Your task to perform on an android device: When is my next meeting? Image 0: 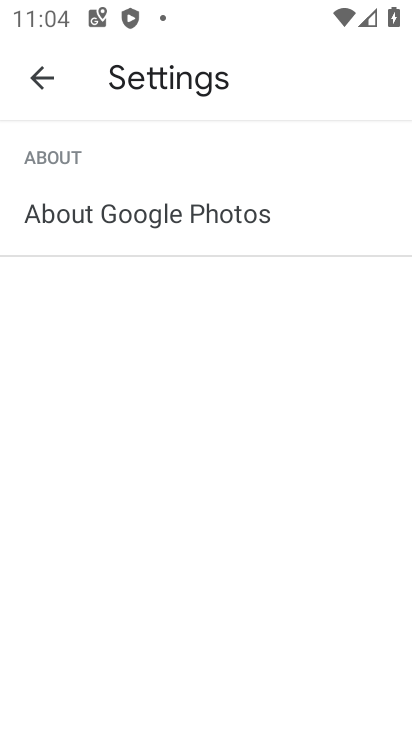
Step 0: press home button
Your task to perform on an android device: When is my next meeting? Image 1: 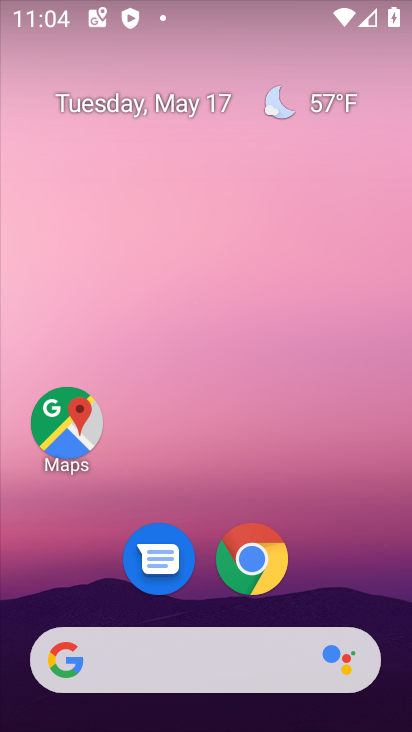
Step 1: drag from (370, 577) to (324, 14)
Your task to perform on an android device: When is my next meeting? Image 2: 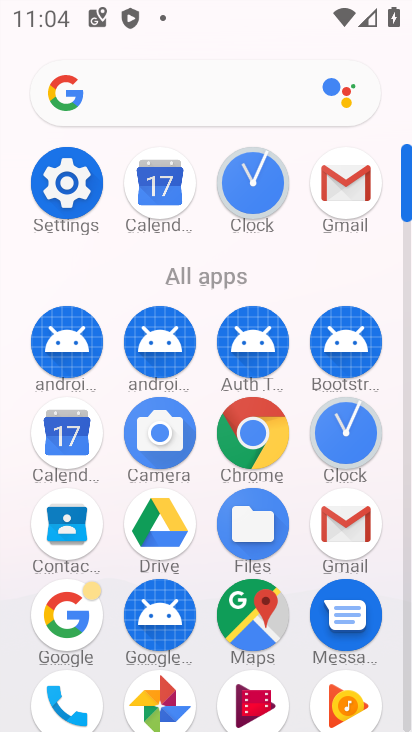
Step 2: click (144, 160)
Your task to perform on an android device: When is my next meeting? Image 3: 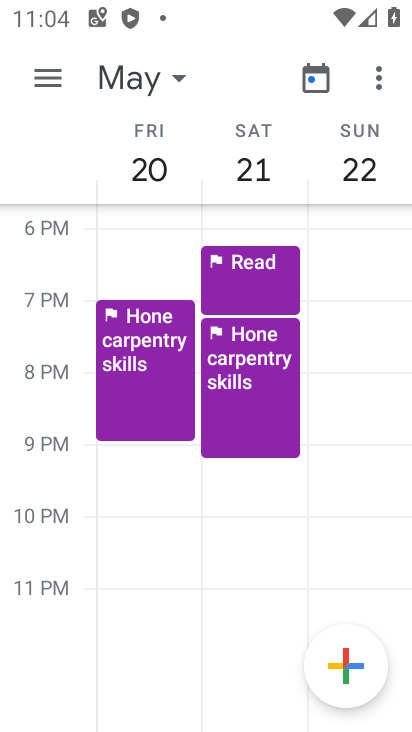
Step 3: click (63, 76)
Your task to perform on an android device: When is my next meeting? Image 4: 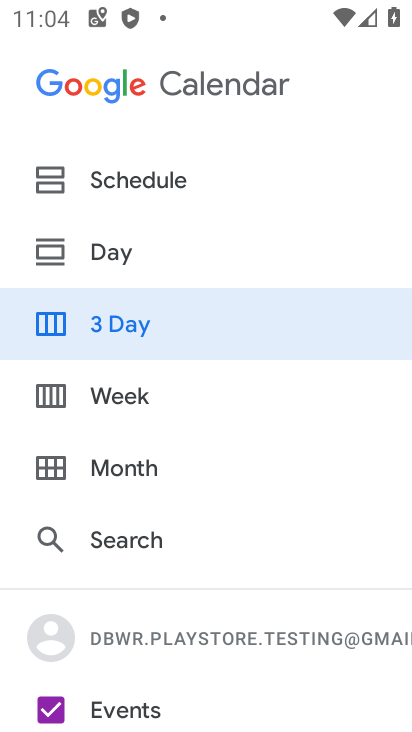
Step 4: click (89, 251)
Your task to perform on an android device: When is my next meeting? Image 5: 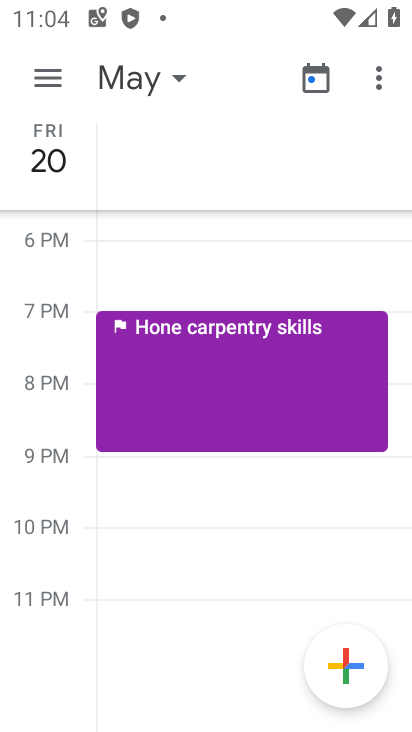
Step 5: click (66, 79)
Your task to perform on an android device: When is my next meeting? Image 6: 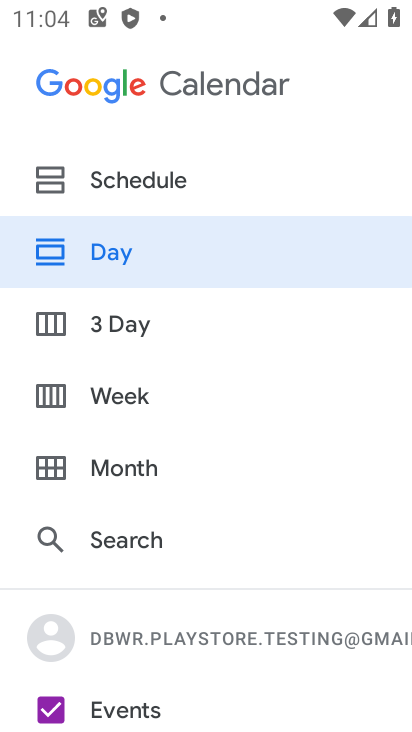
Step 6: click (125, 175)
Your task to perform on an android device: When is my next meeting? Image 7: 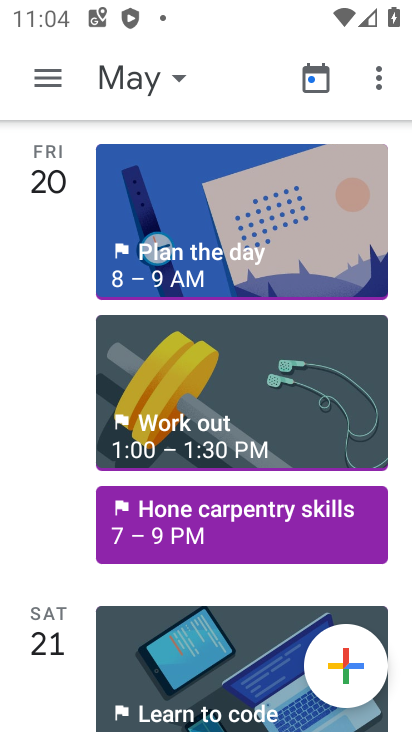
Step 7: click (190, 79)
Your task to perform on an android device: When is my next meeting? Image 8: 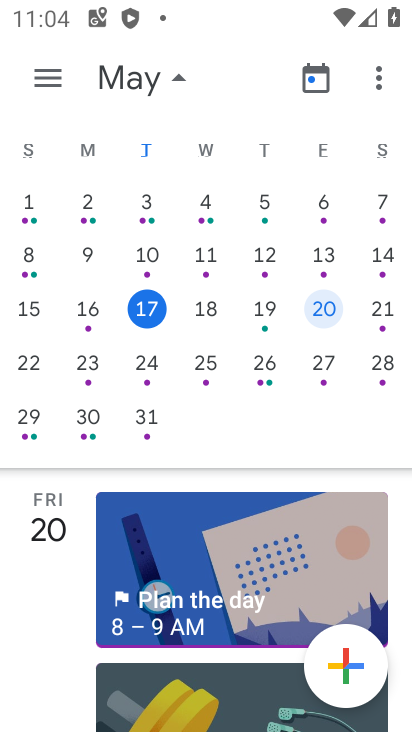
Step 8: click (152, 299)
Your task to perform on an android device: When is my next meeting? Image 9: 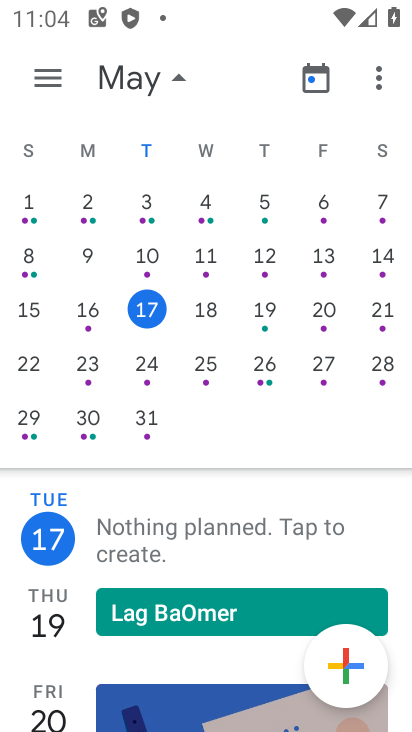
Step 9: click (156, 316)
Your task to perform on an android device: When is my next meeting? Image 10: 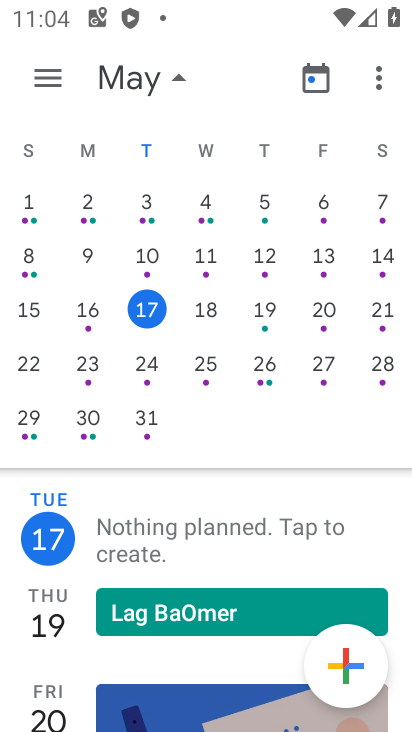
Step 10: task complete